Your task to perform on an android device: set the timer Image 0: 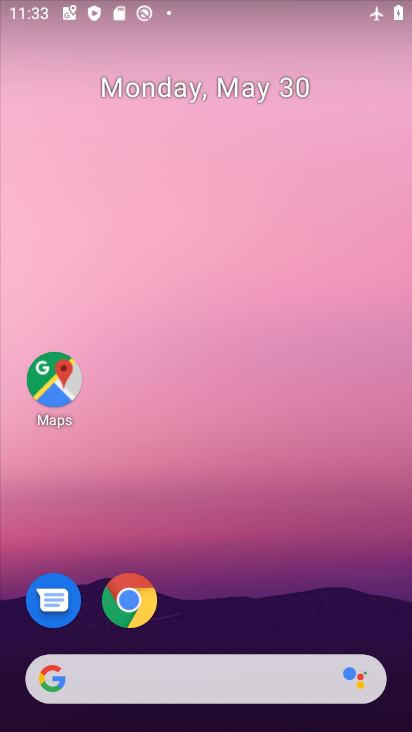
Step 0: drag from (194, 726) to (185, 101)
Your task to perform on an android device: set the timer Image 1: 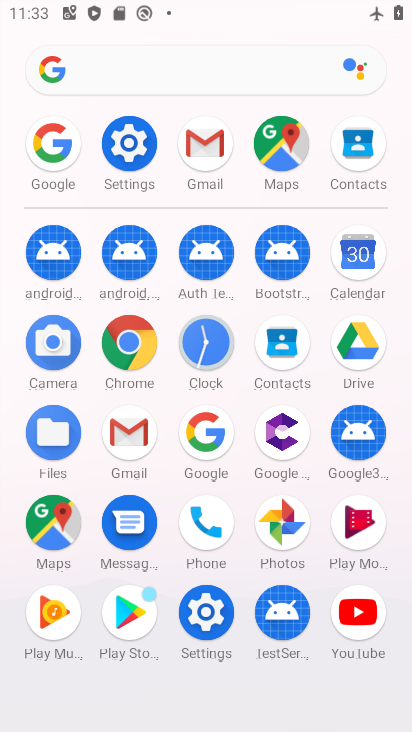
Step 1: click (215, 347)
Your task to perform on an android device: set the timer Image 2: 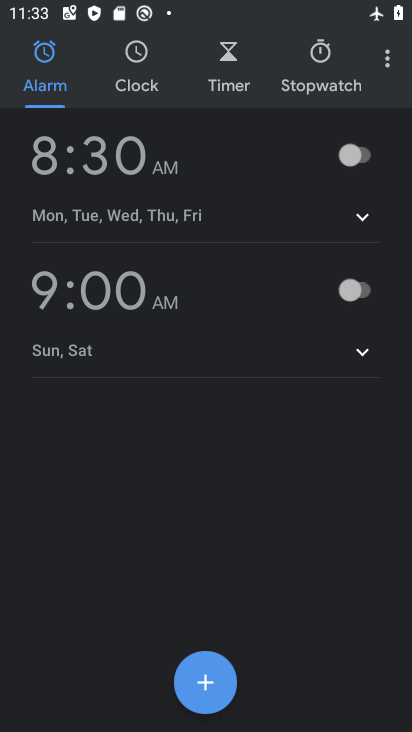
Step 2: click (229, 60)
Your task to perform on an android device: set the timer Image 3: 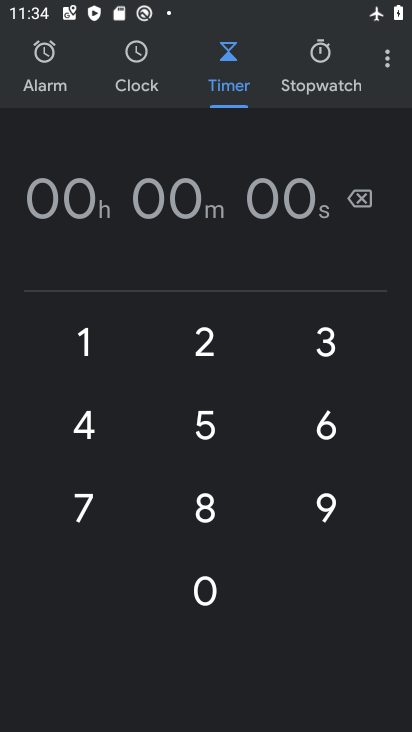
Step 3: click (218, 338)
Your task to perform on an android device: set the timer Image 4: 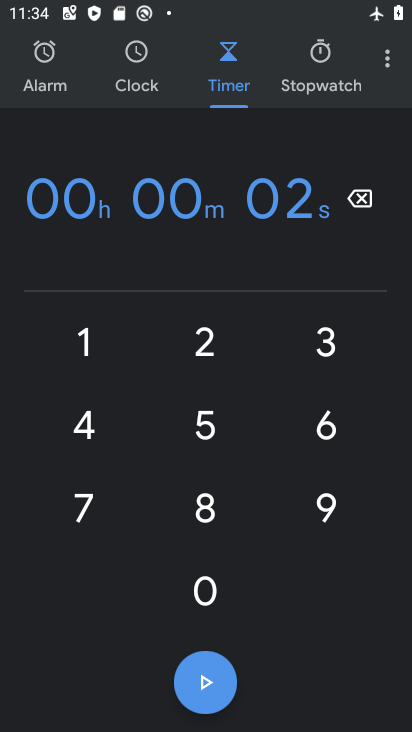
Step 4: click (197, 428)
Your task to perform on an android device: set the timer Image 5: 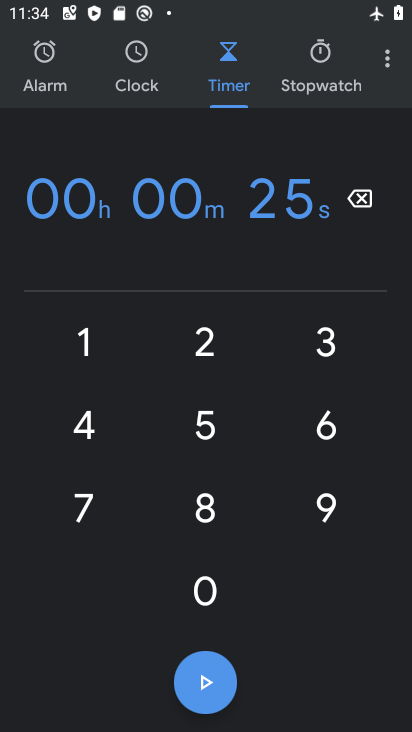
Step 5: click (74, 417)
Your task to perform on an android device: set the timer Image 6: 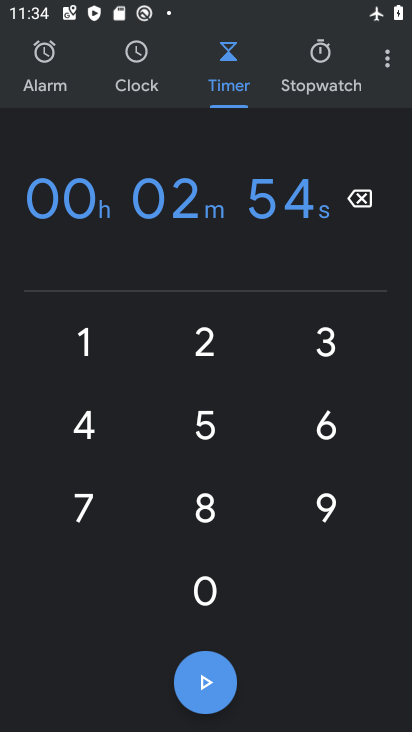
Step 6: click (201, 683)
Your task to perform on an android device: set the timer Image 7: 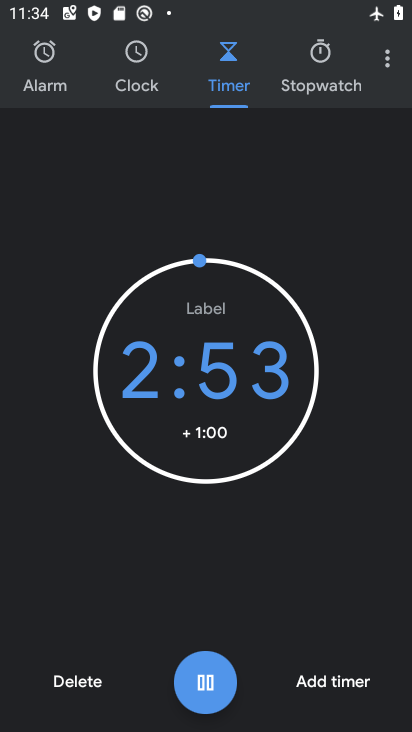
Step 7: task complete